Your task to perform on an android device: turn off notifications in google photos Image 0: 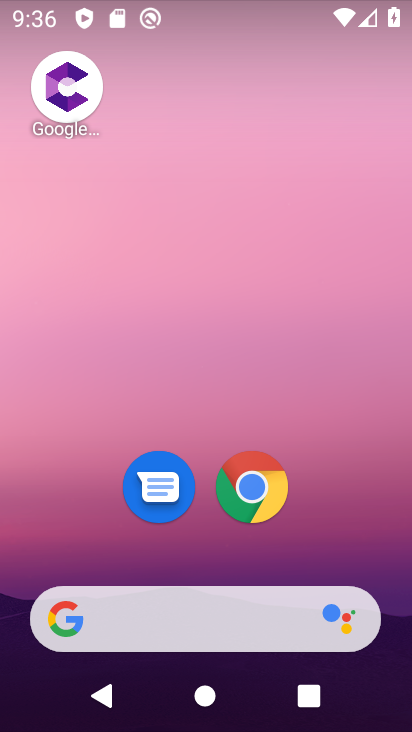
Step 0: drag from (191, 502) to (253, 92)
Your task to perform on an android device: turn off notifications in google photos Image 1: 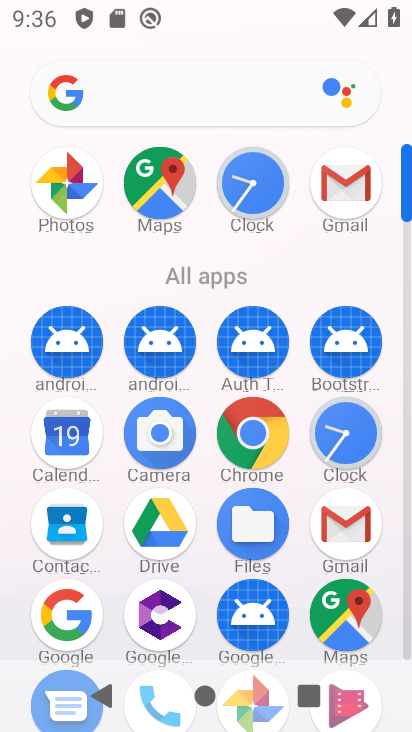
Step 1: drag from (276, 539) to (328, 189)
Your task to perform on an android device: turn off notifications in google photos Image 2: 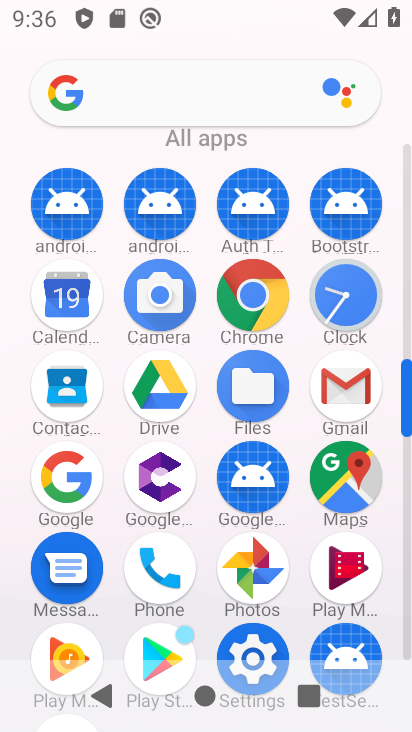
Step 2: click (261, 554)
Your task to perform on an android device: turn off notifications in google photos Image 3: 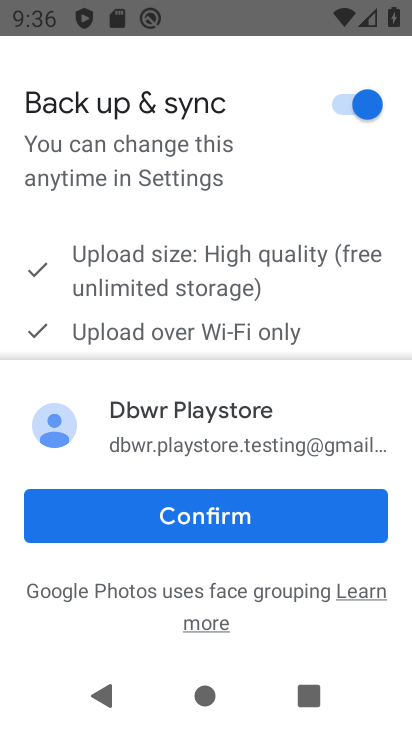
Step 3: click (286, 512)
Your task to perform on an android device: turn off notifications in google photos Image 4: 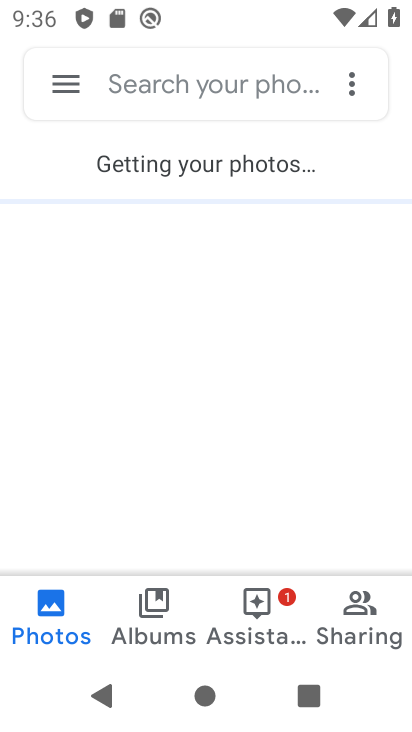
Step 4: click (55, 74)
Your task to perform on an android device: turn off notifications in google photos Image 5: 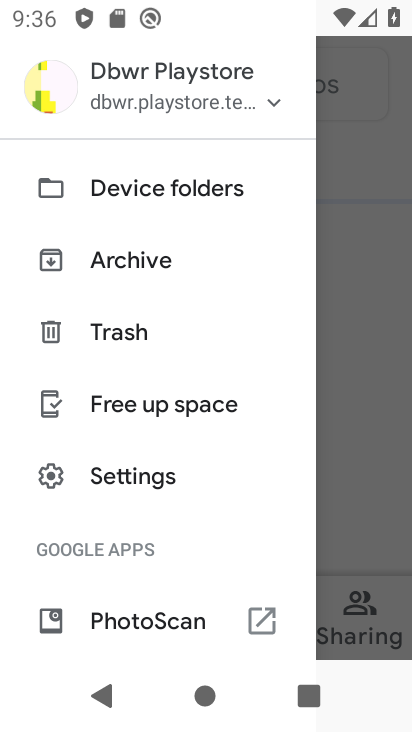
Step 5: click (183, 469)
Your task to perform on an android device: turn off notifications in google photos Image 6: 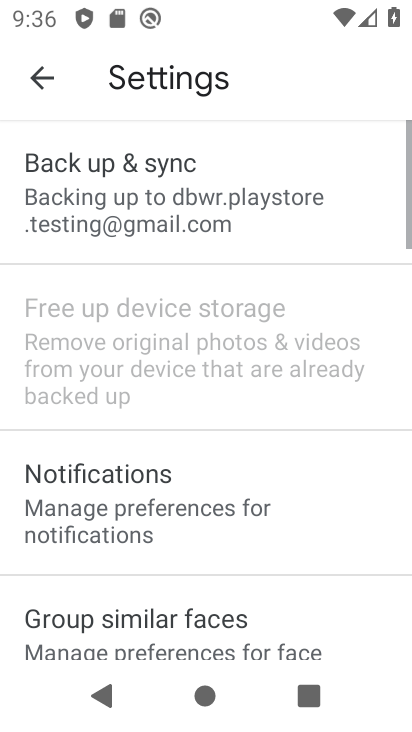
Step 6: click (183, 469)
Your task to perform on an android device: turn off notifications in google photos Image 7: 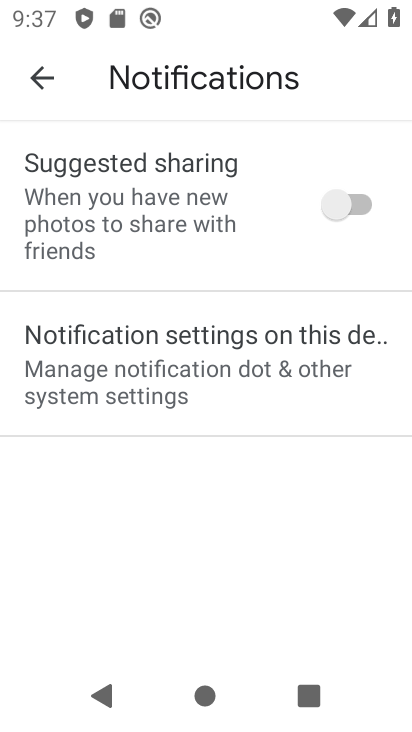
Step 7: task complete